Your task to perform on an android device: Show the shopping cart on walmart. Search for logitech g pro on walmart, select the first entry, add it to the cart, then select checkout. Image 0: 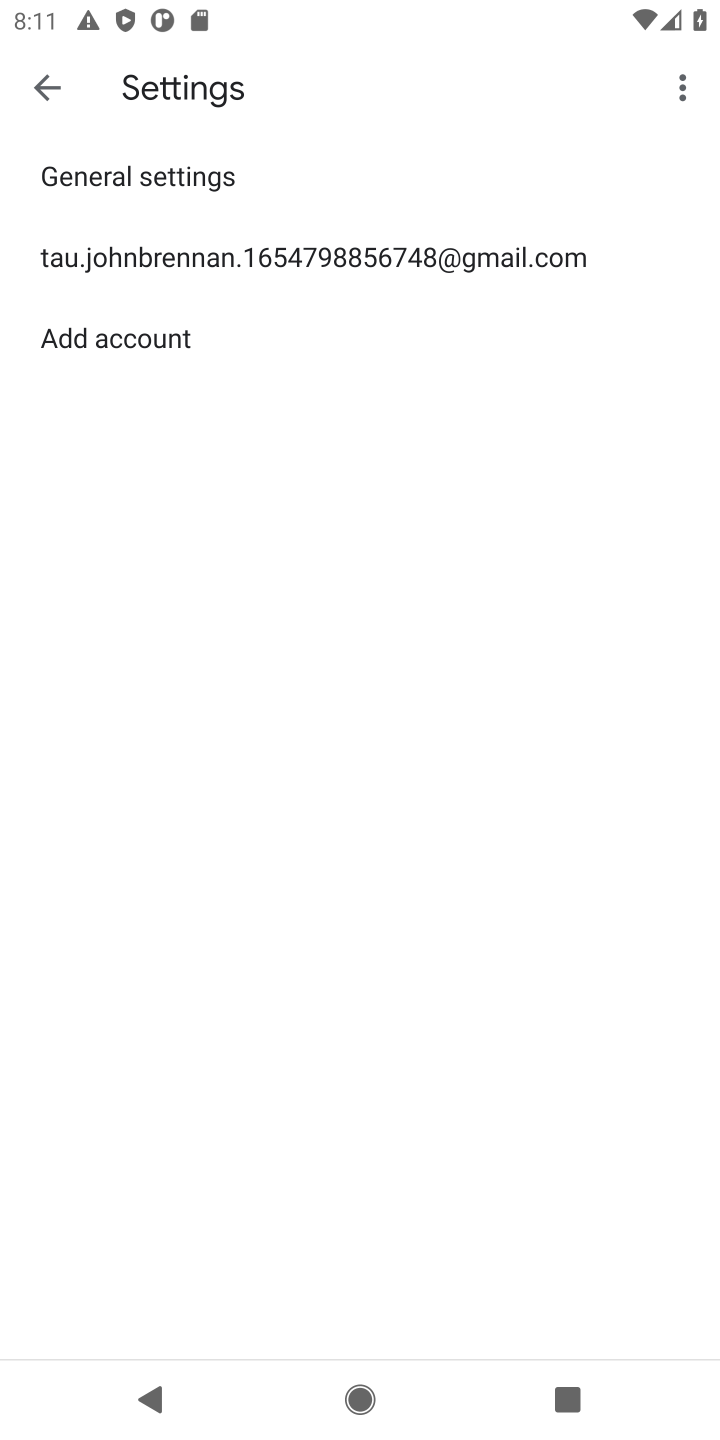
Step 0: press home button
Your task to perform on an android device: Show the shopping cart on walmart. Search for logitech g pro on walmart, select the first entry, add it to the cart, then select checkout. Image 1: 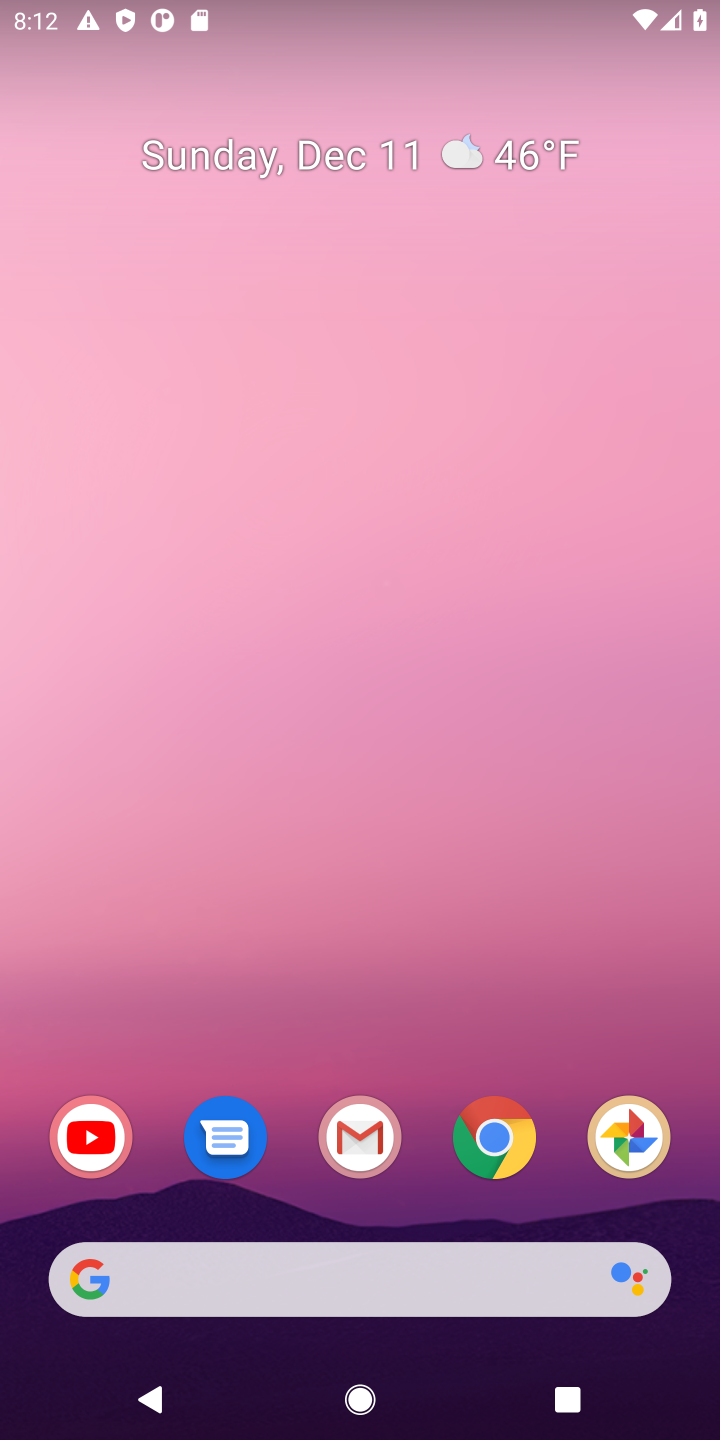
Step 1: click (498, 1141)
Your task to perform on an android device: Show the shopping cart on walmart. Search for logitech g pro on walmart, select the first entry, add it to the cart, then select checkout. Image 2: 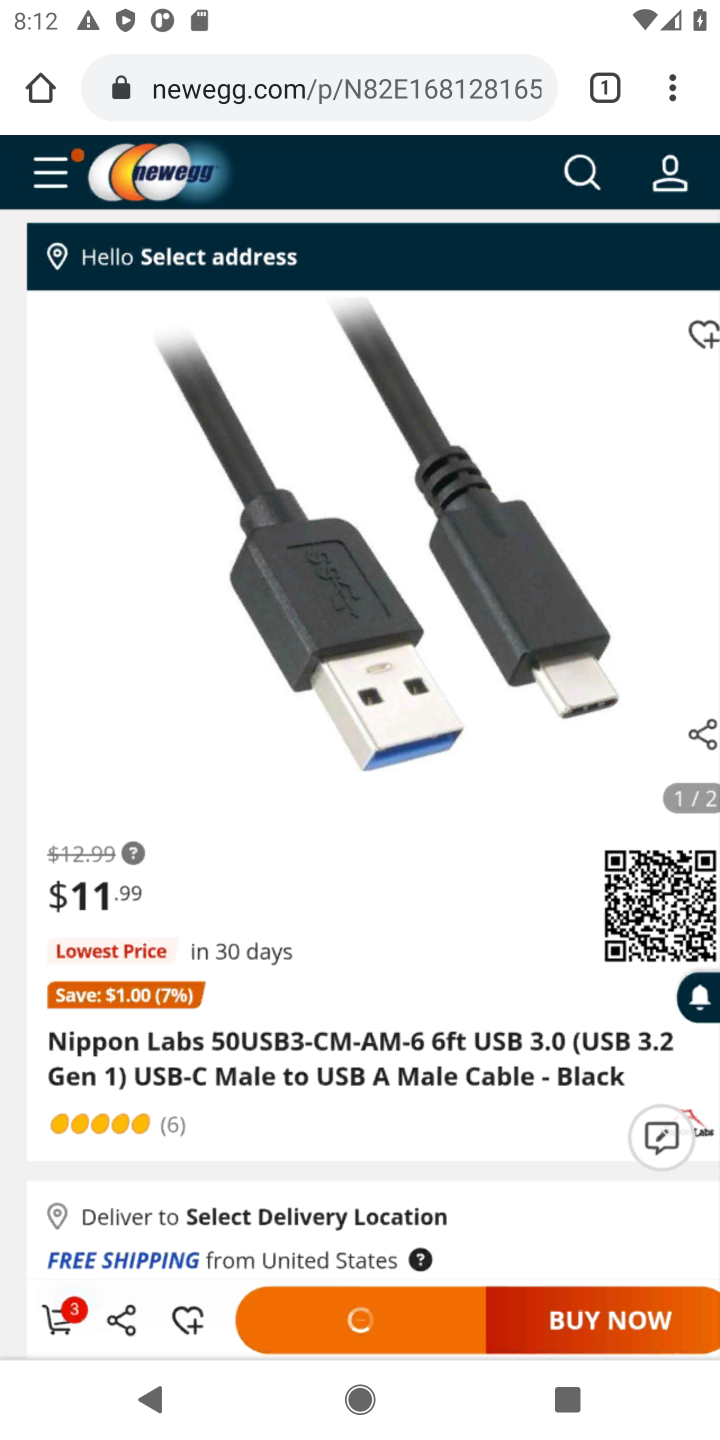
Step 2: click (359, 88)
Your task to perform on an android device: Show the shopping cart on walmart. Search for logitech g pro on walmart, select the first entry, add it to the cart, then select checkout. Image 3: 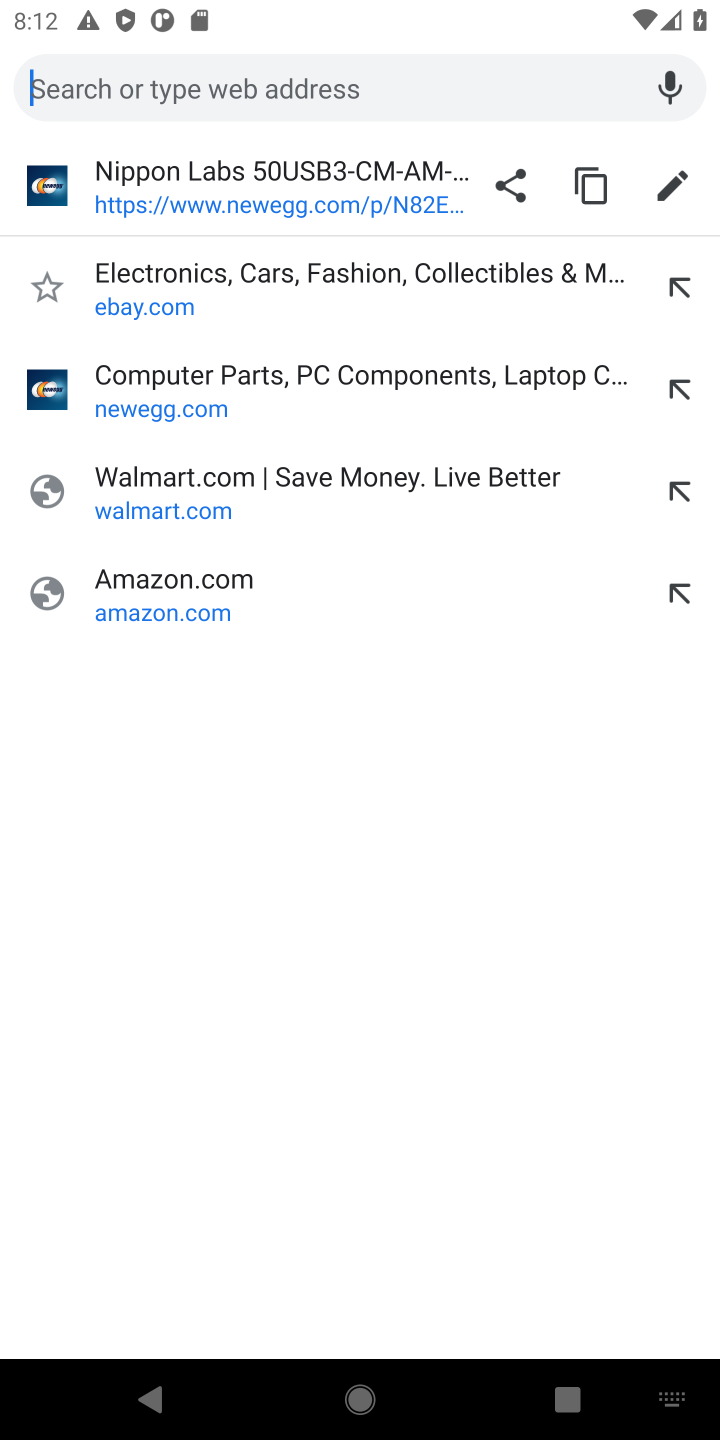
Step 3: click (206, 492)
Your task to perform on an android device: Show the shopping cart on walmart. Search for logitech g pro on walmart, select the first entry, add it to the cart, then select checkout. Image 4: 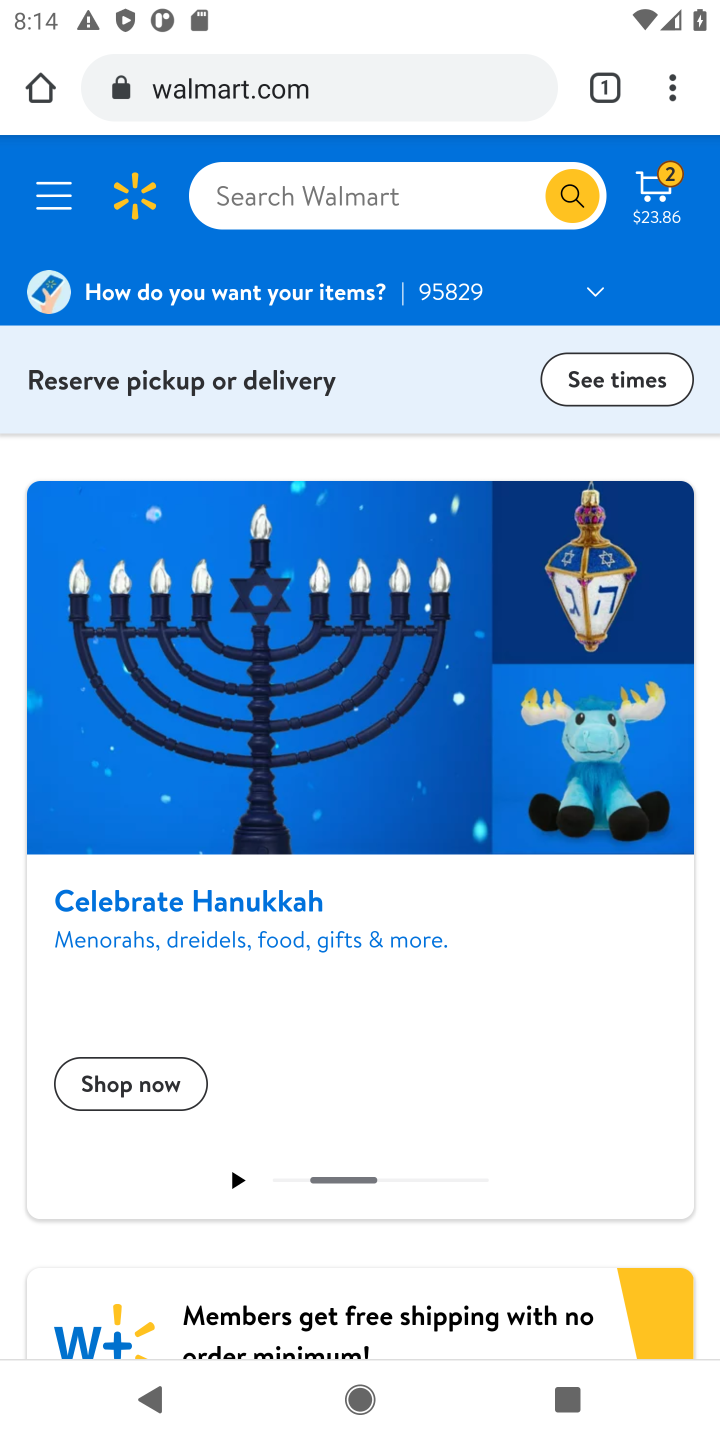
Step 4: click (409, 195)
Your task to perform on an android device: Show the shopping cart on walmart. Search for logitech g pro on walmart, select the first entry, add it to the cart, then select checkout. Image 5: 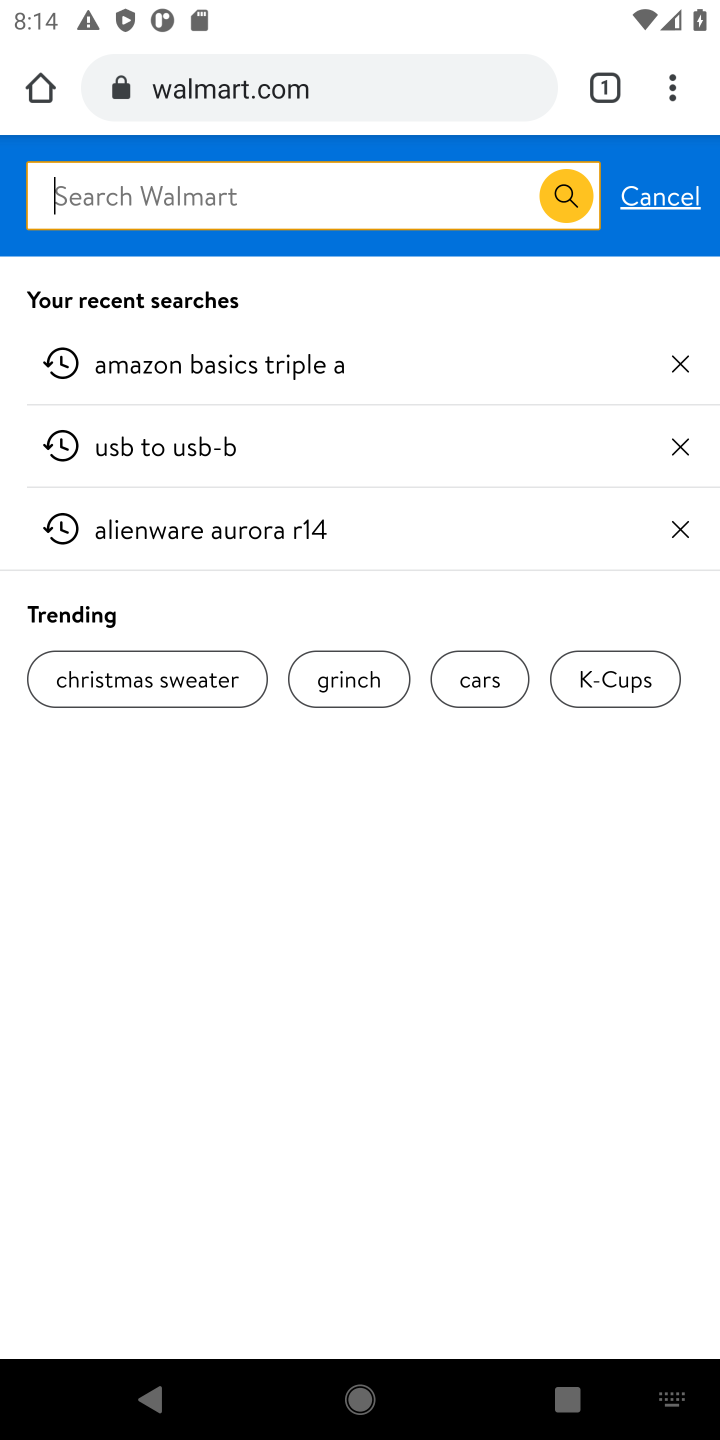
Step 5: type "logitech g pro"
Your task to perform on an android device: Show the shopping cart on walmart. Search for logitech g pro on walmart, select the first entry, add it to the cart, then select checkout. Image 6: 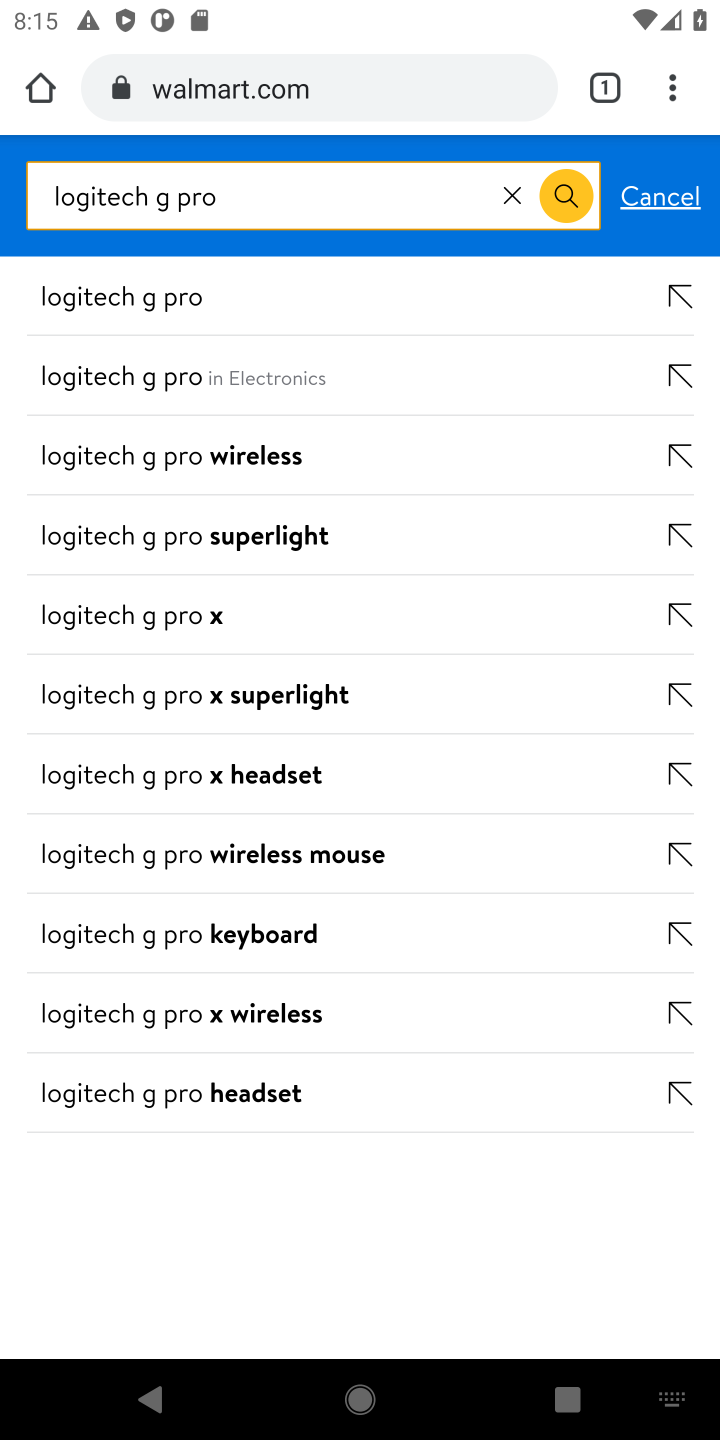
Step 6: click (112, 300)
Your task to perform on an android device: Show the shopping cart on walmart. Search for logitech g pro on walmart, select the first entry, add it to the cart, then select checkout. Image 7: 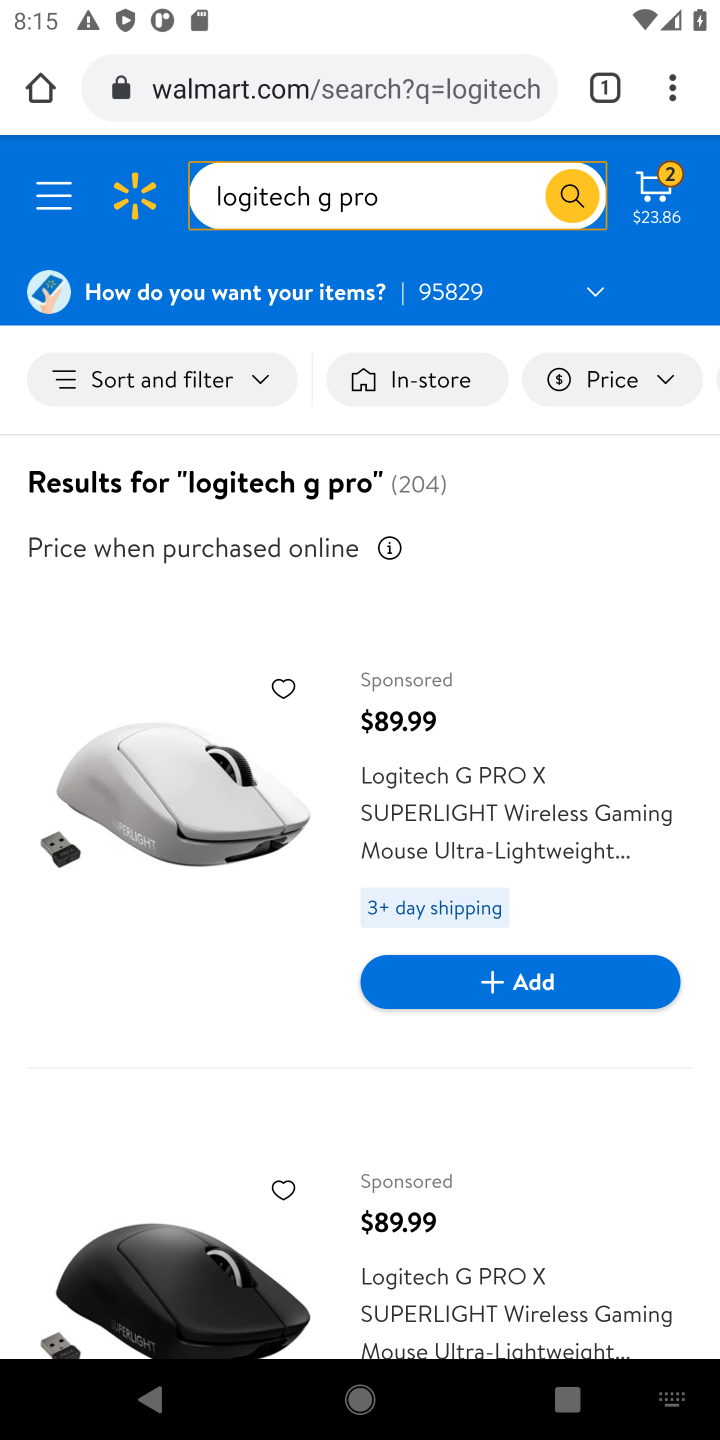
Step 7: click (516, 989)
Your task to perform on an android device: Show the shopping cart on walmart. Search for logitech g pro on walmart, select the first entry, add it to the cart, then select checkout. Image 8: 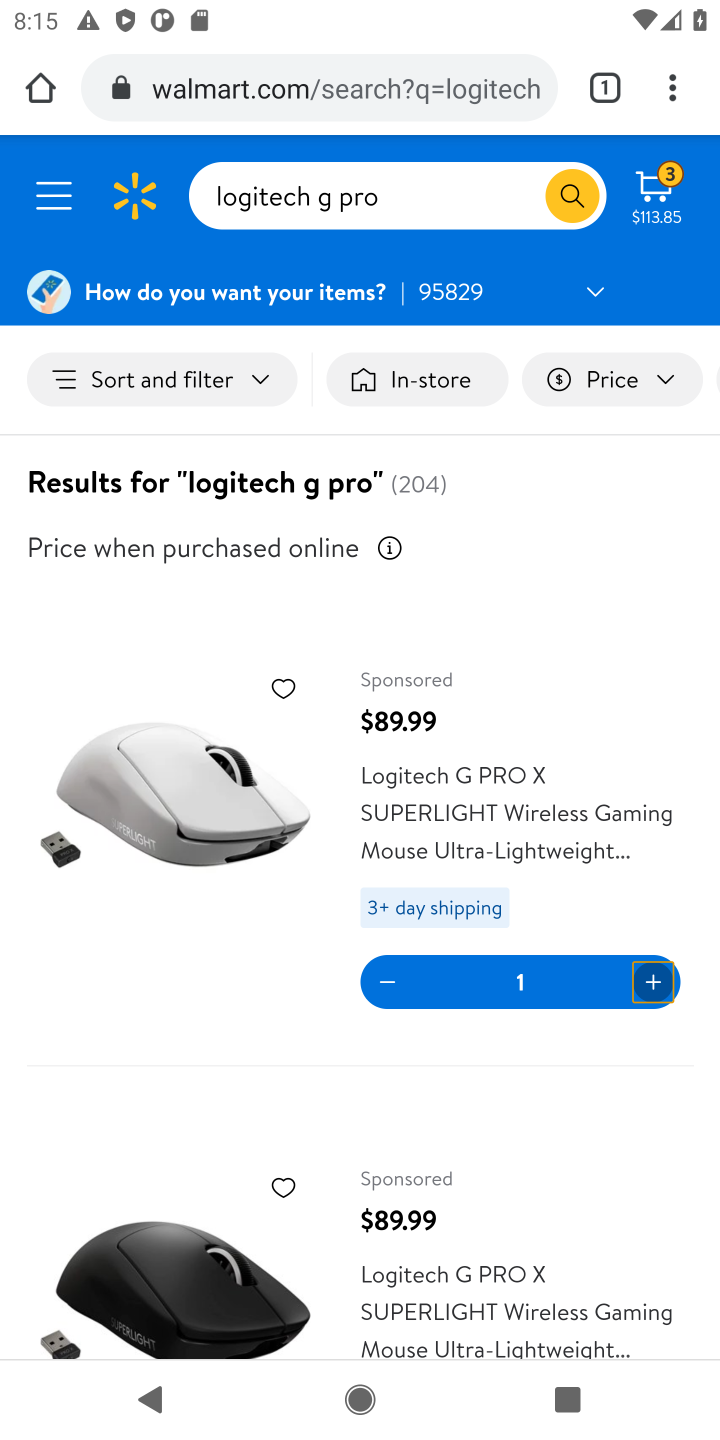
Step 8: click (652, 185)
Your task to perform on an android device: Show the shopping cart on walmart. Search for logitech g pro on walmart, select the first entry, add it to the cart, then select checkout. Image 9: 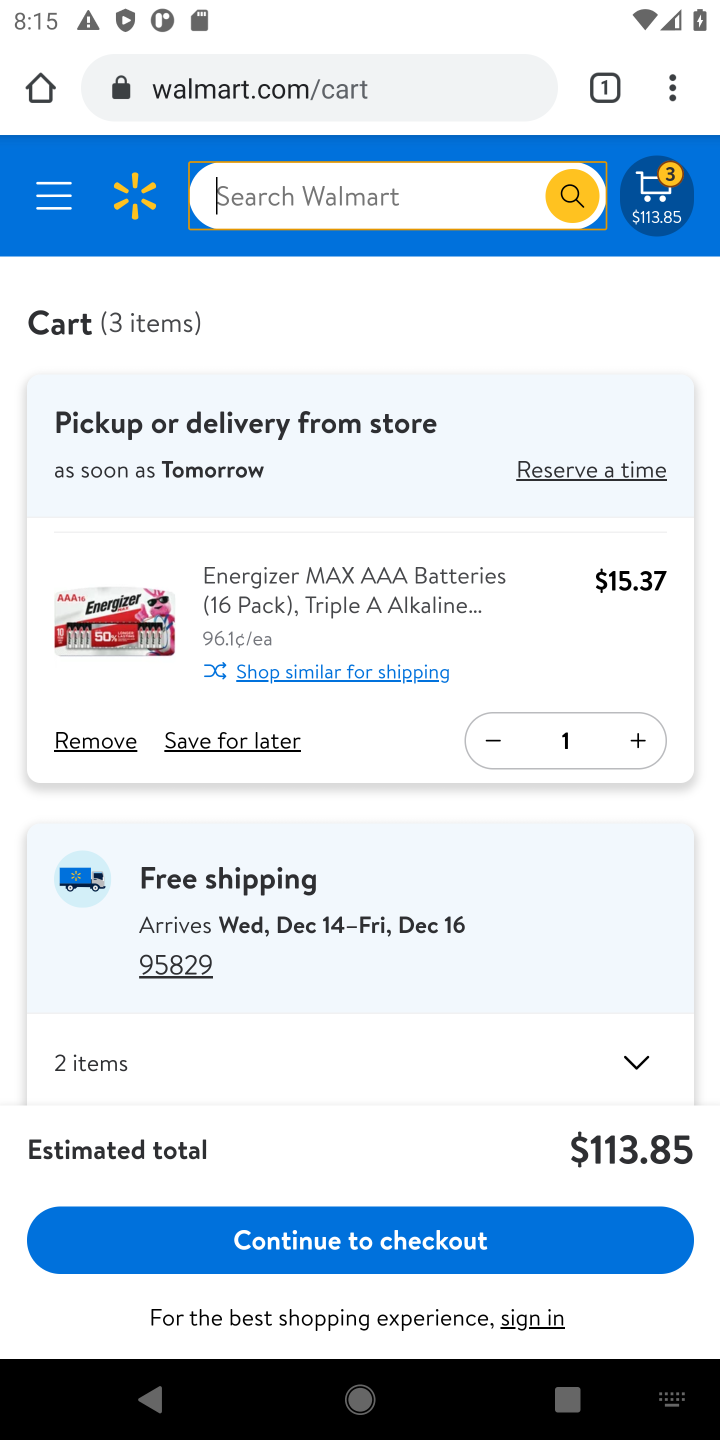
Step 9: click (444, 1246)
Your task to perform on an android device: Show the shopping cart on walmart. Search for logitech g pro on walmart, select the first entry, add it to the cart, then select checkout. Image 10: 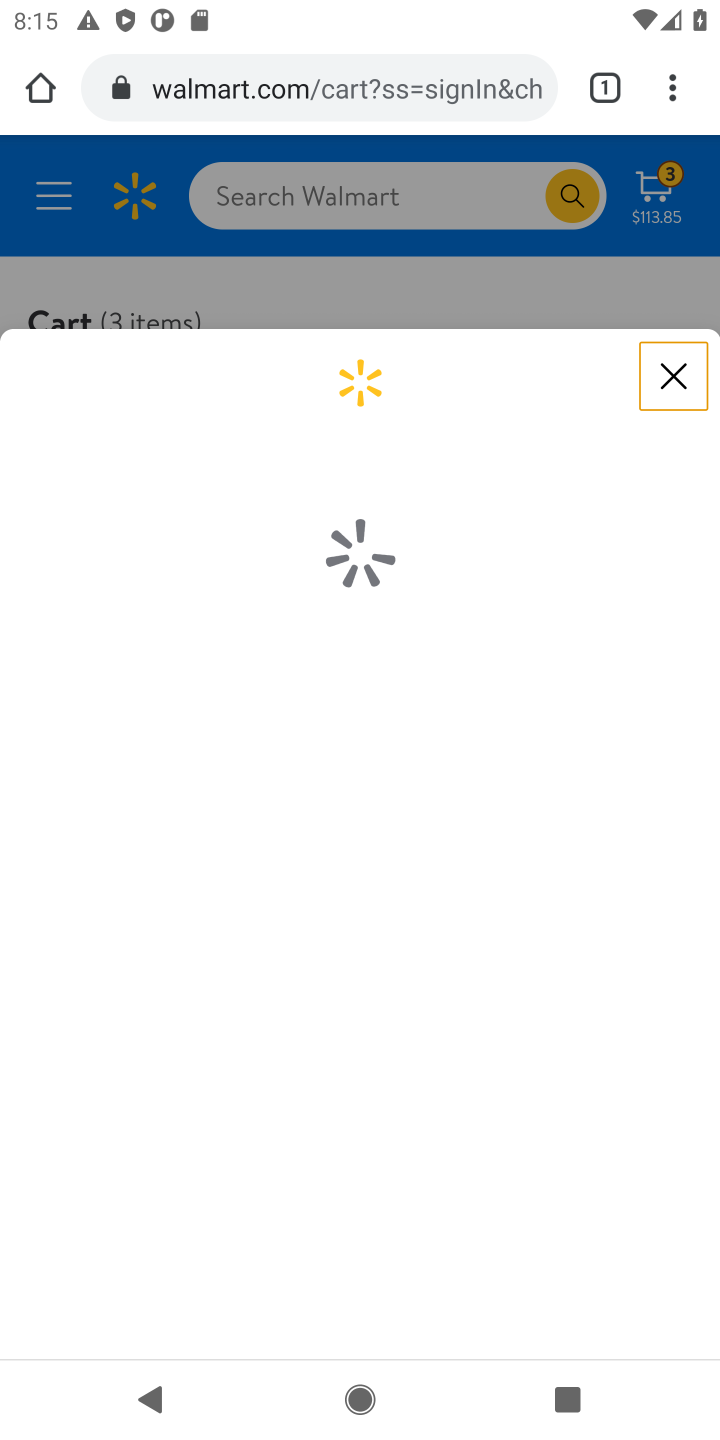
Step 10: task complete